Your task to perform on an android device: find photos in the google photos app Image 0: 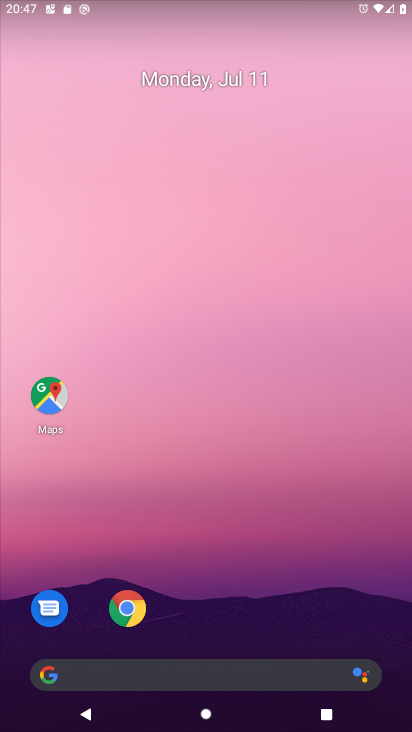
Step 0: drag from (293, 638) to (269, 312)
Your task to perform on an android device: find photos in the google photos app Image 1: 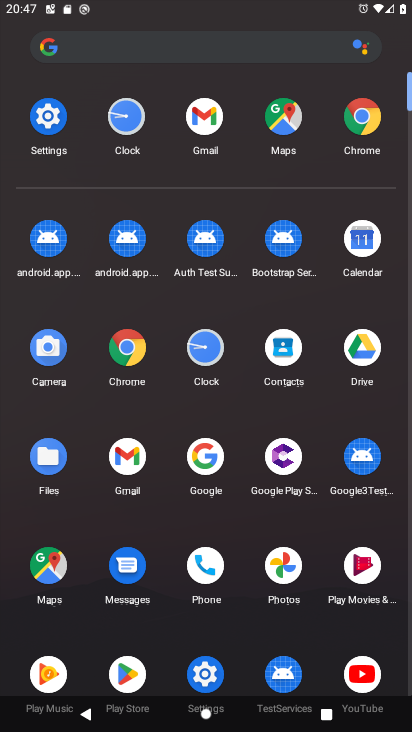
Step 1: click (276, 567)
Your task to perform on an android device: find photos in the google photos app Image 2: 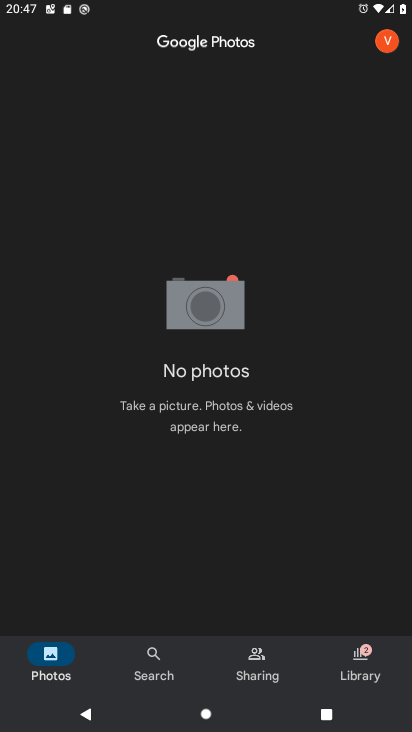
Step 2: task complete